Your task to perform on an android device: open a bookmark in the chrome app Image 0: 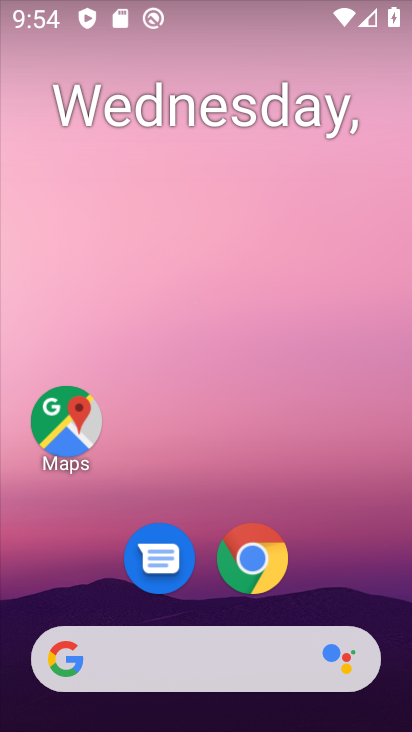
Step 0: click (251, 547)
Your task to perform on an android device: open a bookmark in the chrome app Image 1: 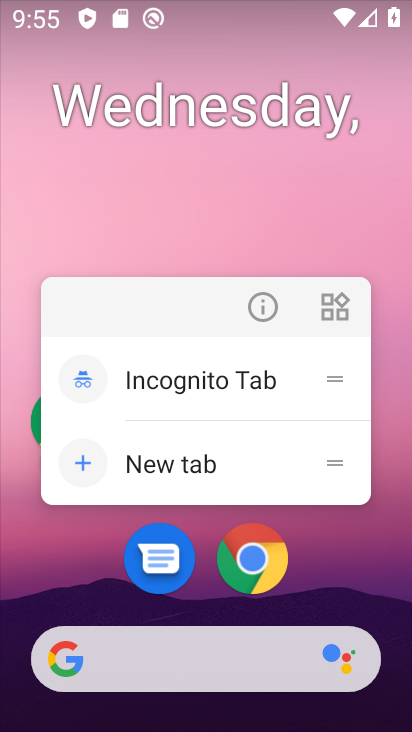
Step 1: click (245, 568)
Your task to perform on an android device: open a bookmark in the chrome app Image 2: 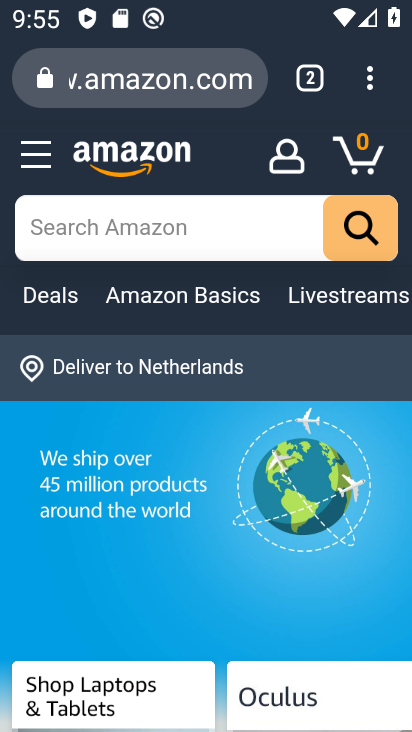
Step 2: click (364, 79)
Your task to perform on an android device: open a bookmark in the chrome app Image 3: 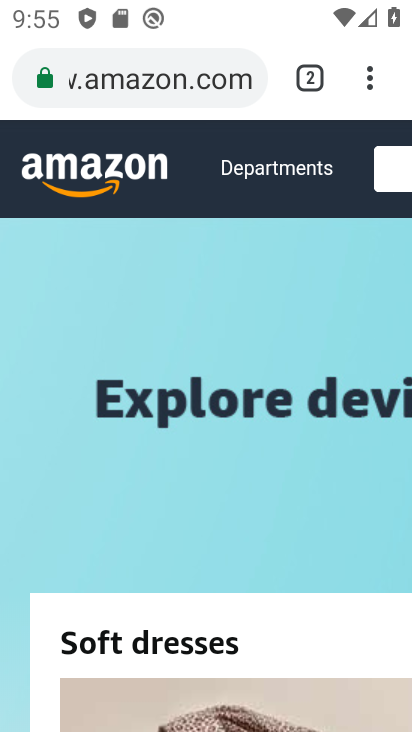
Step 3: click (372, 69)
Your task to perform on an android device: open a bookmark in the chrome app Image 4: 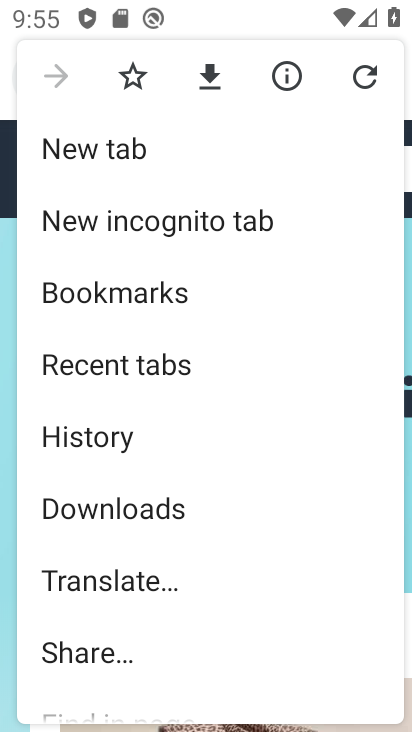
Step 4: click (136, 297)
Your task to perform on an android device: open a bookmark in the chrome app Image 5: 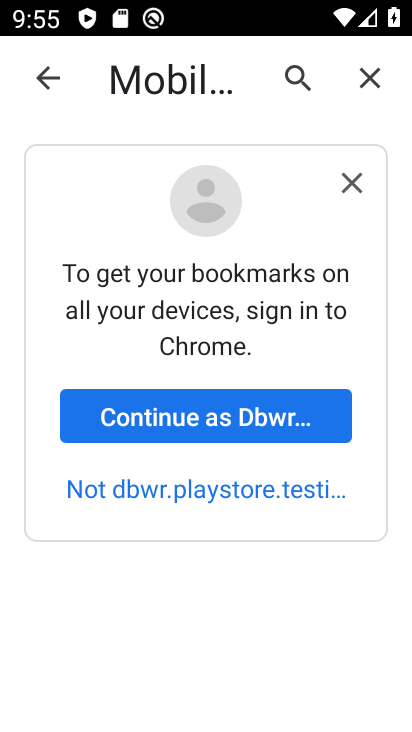
Step 5: click (350, 185)
Your task to perform on an android device: open a bookmark in the chrome app Image 6: 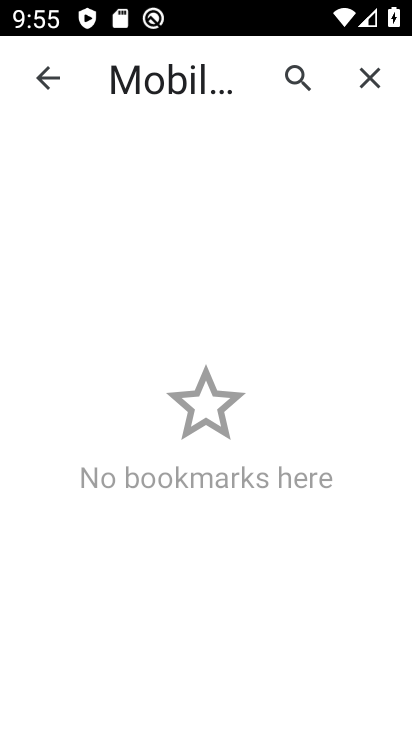
Step 6: task complete